Your task to perform on an android device: What is the news today? Image 0: 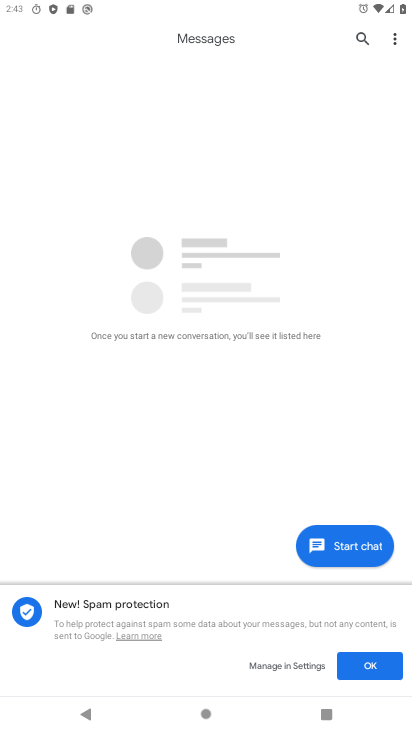
Step 0: press home button
Your task to perform on an android device: What is the news today? Image 1: 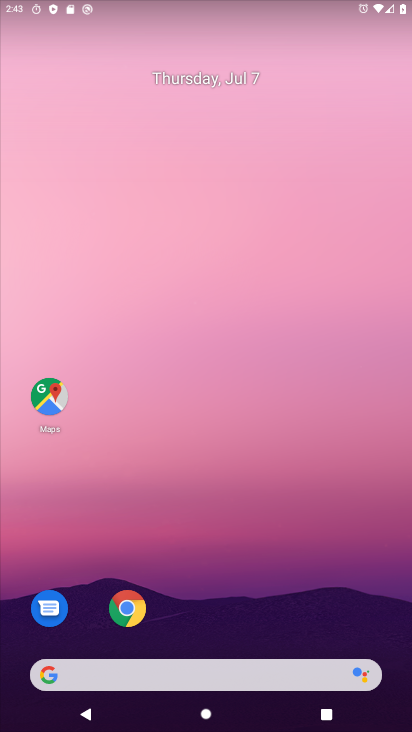
Step 1: task complete